Your task to perform on an android device: turn off notifications settings in the gmail app Image 0: 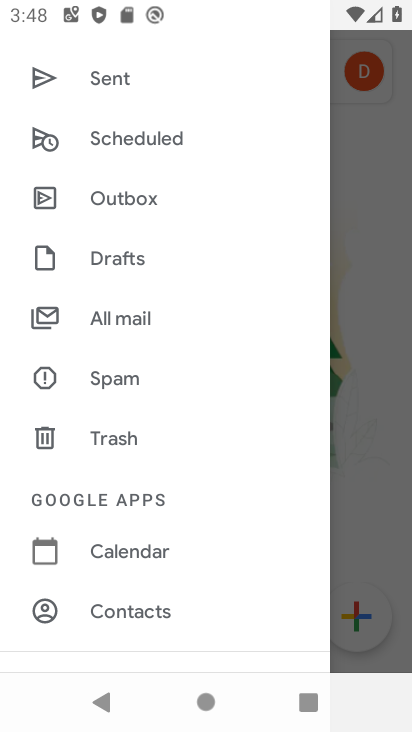
Step 0: press home button
Your task to perform on an android device: turn off notifications settings in the gmail app Image 1: 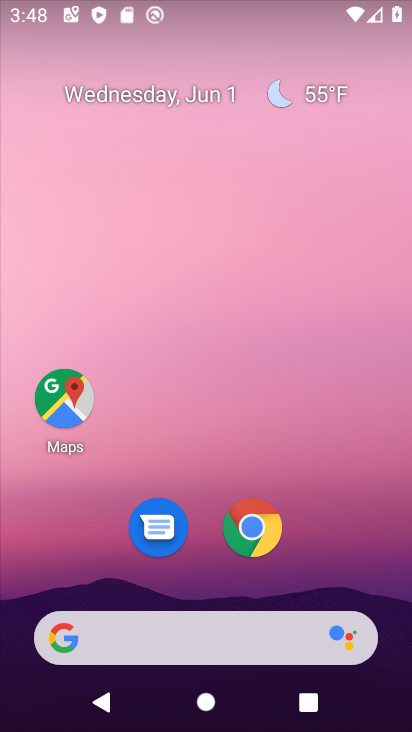
Step 1: drag from (336, 570) to (265, 41)
Your task to perform on an android device: turn off notifications settings in the gmail app Image 2: 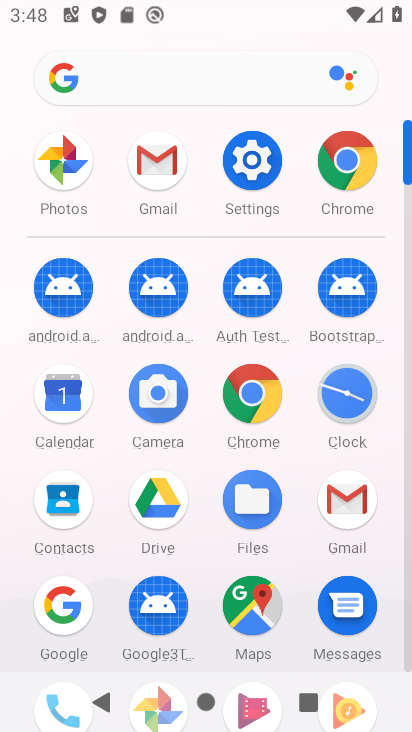
Step 2: click (347, 502)
Your task to perform on an android device: turn off notifications settings in the gmail app Image 3: 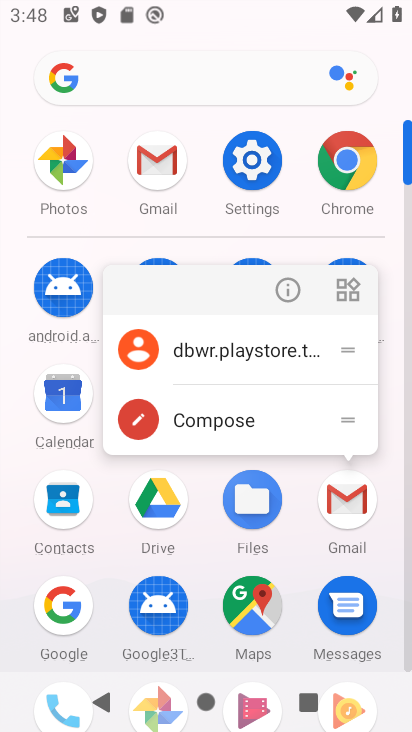
Step 3: click (273, 298)
Your task to perform on an android device: turn off notifications settings in the gmail app Image 4: 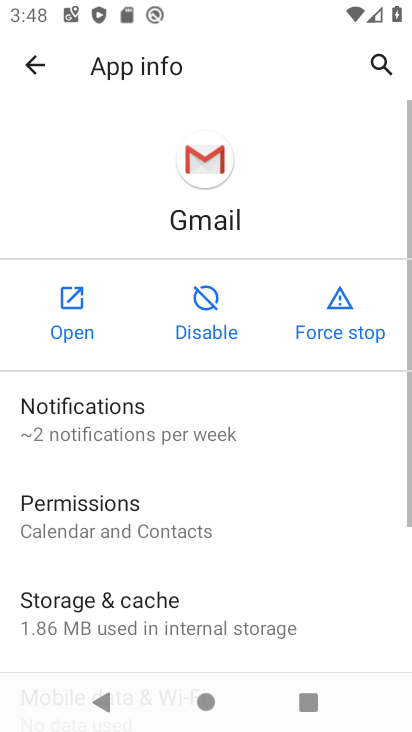
Step 4: click (157, 395)
Your task to perform on an android device: turn off notifications settings in the gmail app Image 5: 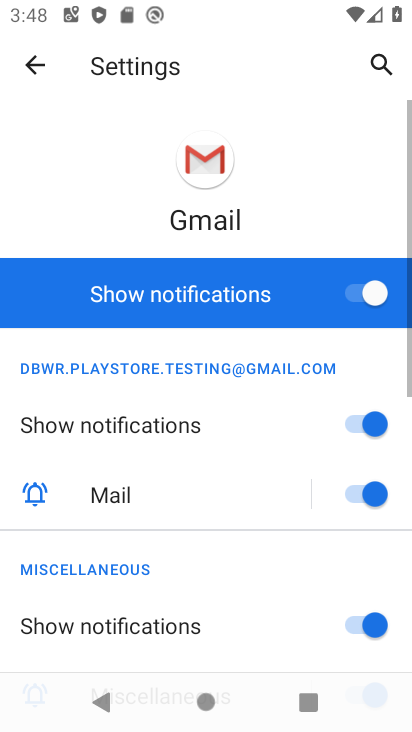
Step 5: click (211, 314)
Your task to perform on an android device: turn off notifications settings in the gmail app Image 6: 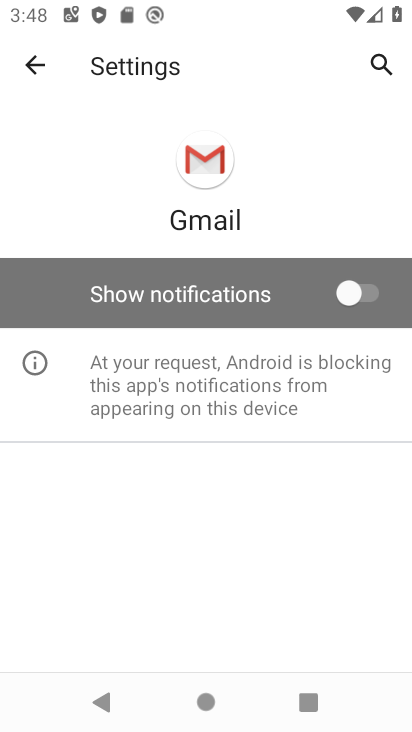
Step 6: task complete